Your task to perform on an android device: Search for seafood restaurants on Google Maps Image 0: 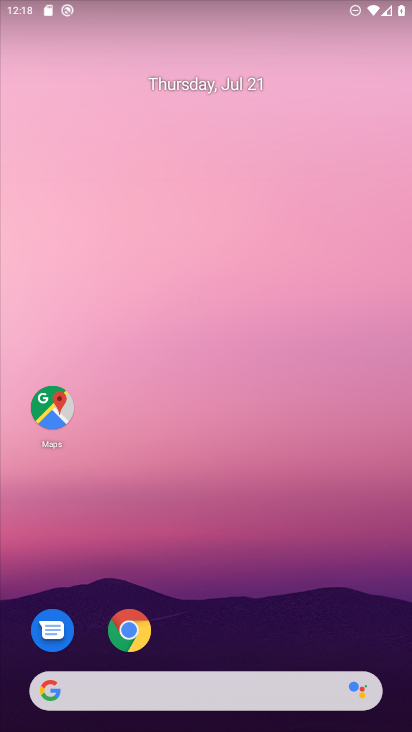
Step 0: click (49, 395)
Your task to perform on an android device: Search for seafood restaurants on Google Maps Image 1: 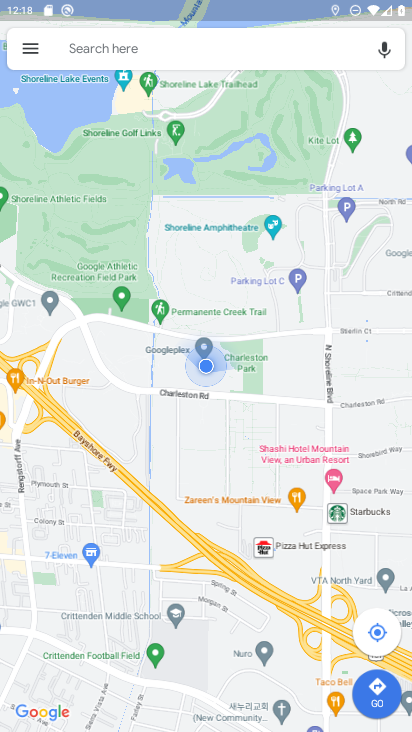
Step 1: click (162, 52)
Your task to perform on an android device: Search for seafood restaurants on Google Maps Image 2: 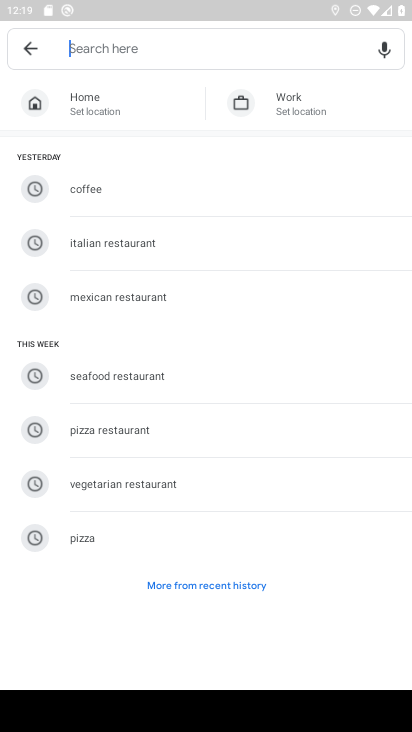
Step 2: type "seafood restaurants"
Your task to perform on an android device: Search for seafood restaurants on Google Maps Image 3: 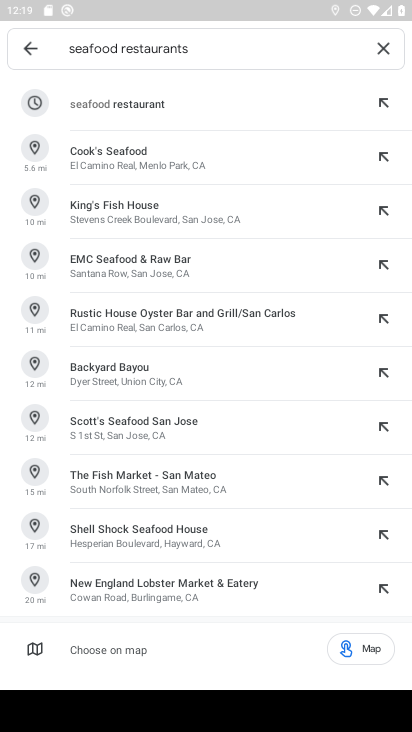
Step 3: click (158, 98)
Your task to perform on an android device: Search for seafood restaurants on Google Maps Image 4: 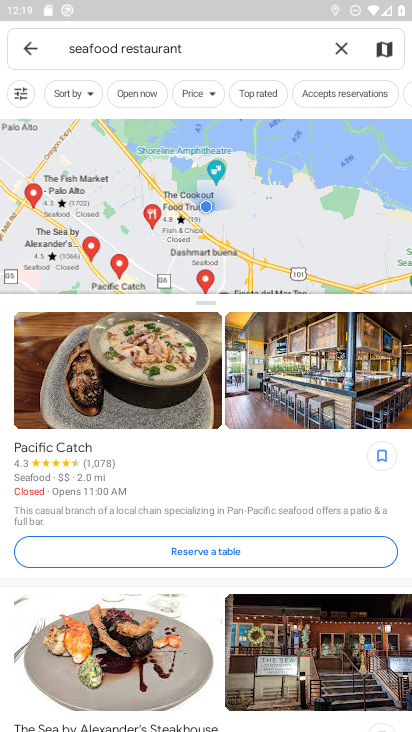
Step 4: task complete